Your task to perform on an android device: open app "McDonald's" (install if not already installed) and go to login screen Image 0: 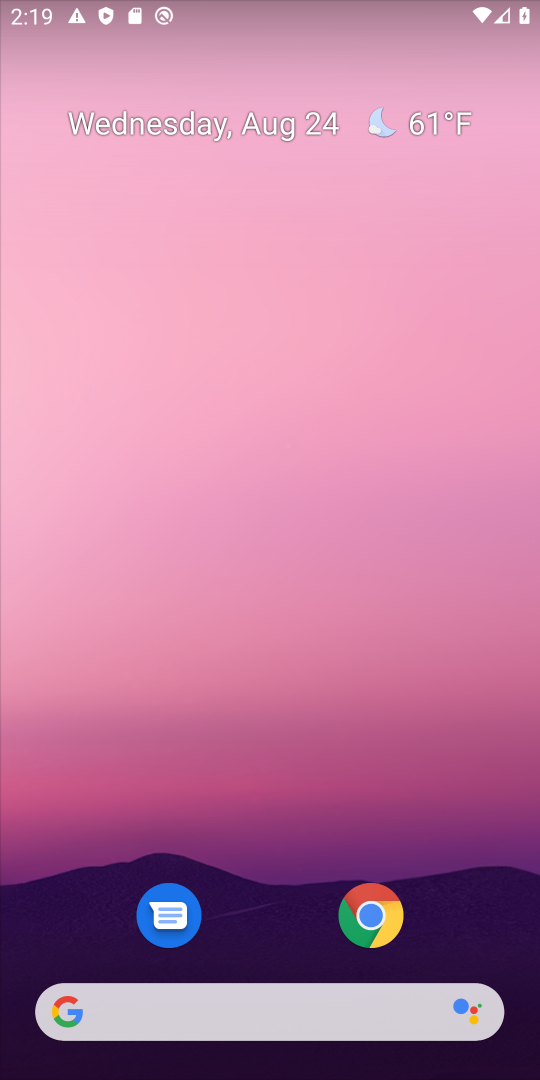
Step 0: drag from (271, 878) to (249, 114)
Your task to perform on an android device: open app "McDonald's" (install if not already installed) and go to login screen Image 1: 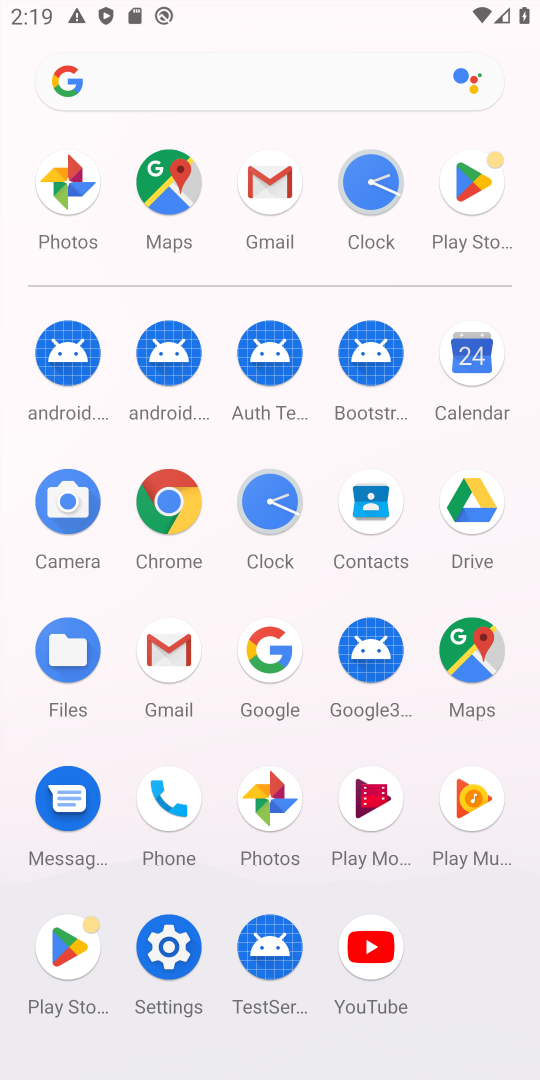
Step 1: click (470, 203)
Your task to perform on an android device: open app "McDonald's" (install if not already installed) and go to login screen Image 2: 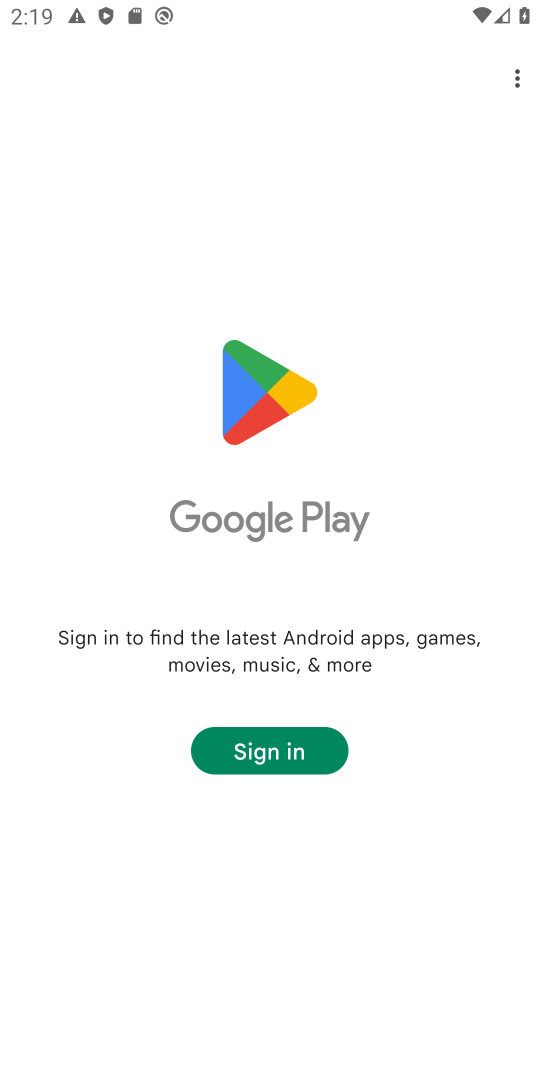
Step 2: task complete